Your task to perform on an android device: manage bookmarks in the chrome app Image 0: 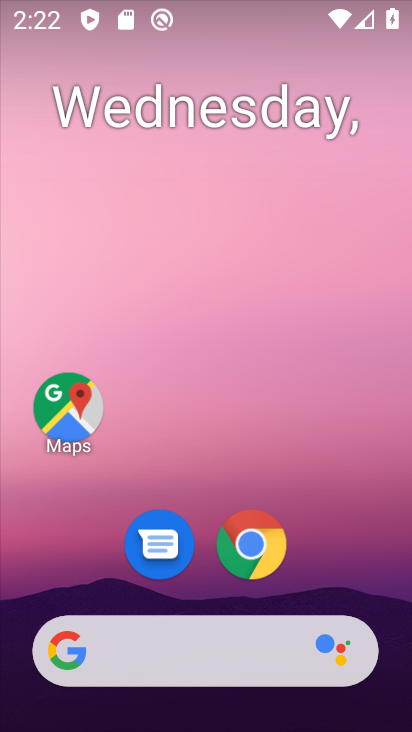
Step 0: drag from (372, 497) to (376, 149)
Your task to perform on an android device: manage bookmarks in the chrome app Image 1: 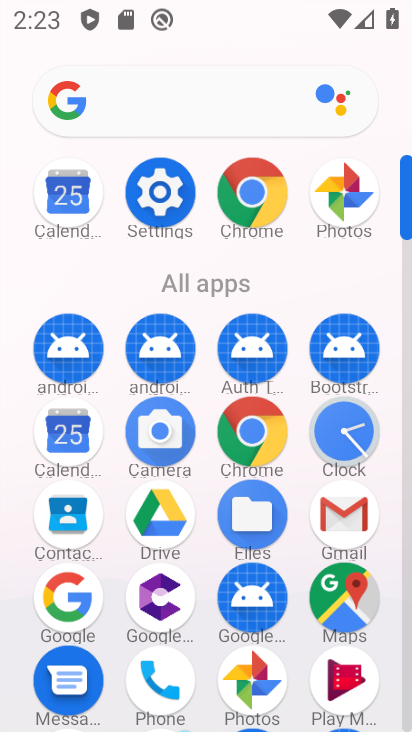
Step 1: click (255, 447)
Your task to perform on an android device: manage bookmarks in the chrome app Image 2: 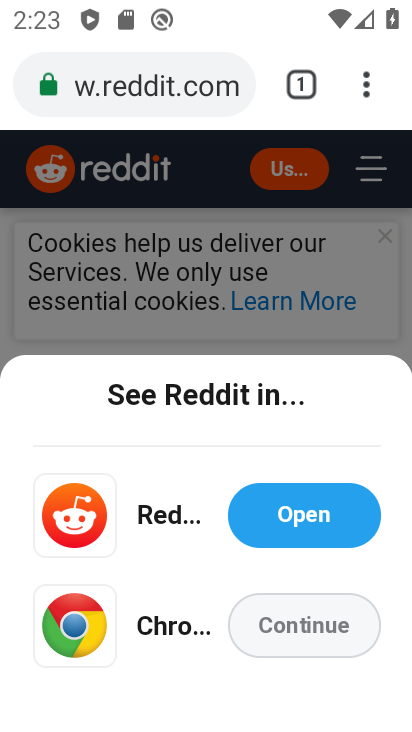
Step 2: task complete